Your task to perform on an android device: Open the calendar and show me this week's events? Image 0: 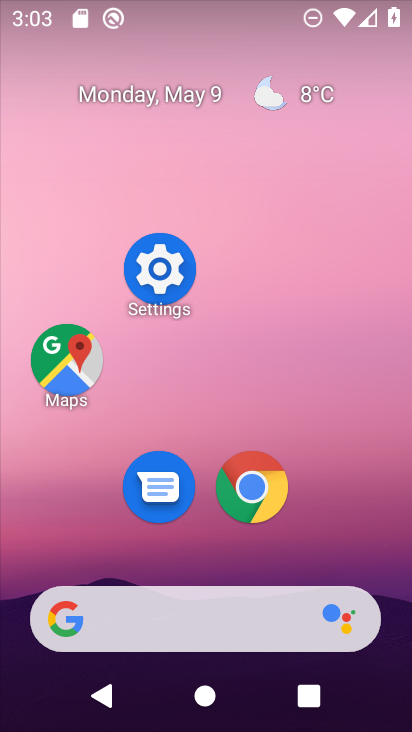
Step 0: drag from (331, 520) to (263, 0)
Your task to perform on an android device: Open the calendar and show me this week's events? Image 1: 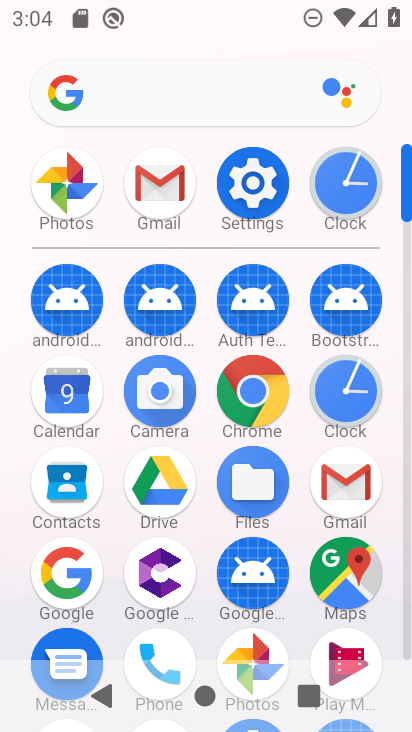
Step 1: click (52, 391)
Your task to perform on an android device: Open the calendar and show me this week's events? Image 2: 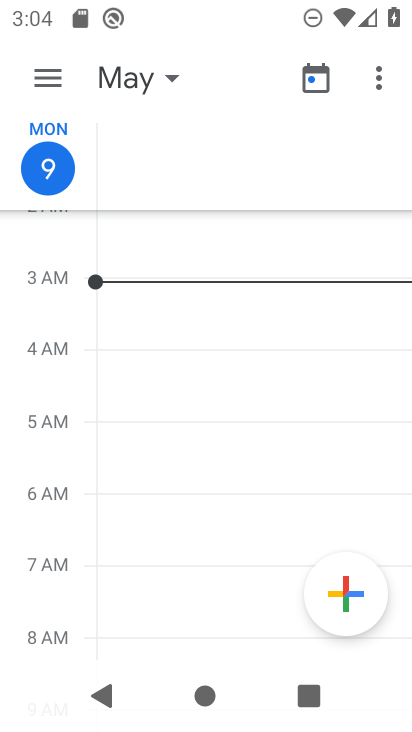
Step 2: click (42, 66)
Your task to perform on an android device: Open the calendar and show me this week's events? Image 3: 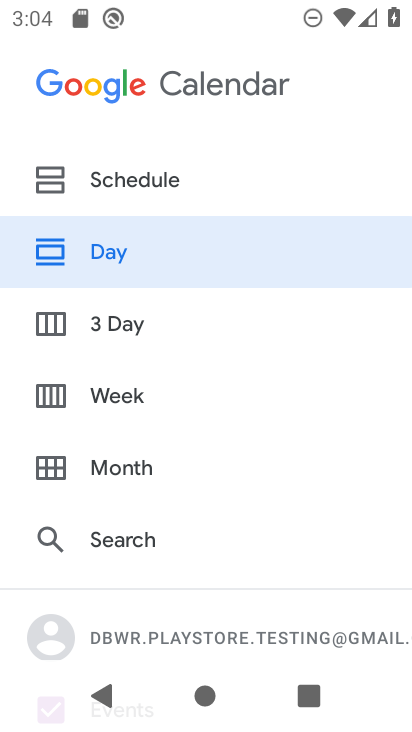
Step 3: click (117, 395)
Your task to perform on an android device: Open the calendar and show me this week's events? Image 4: 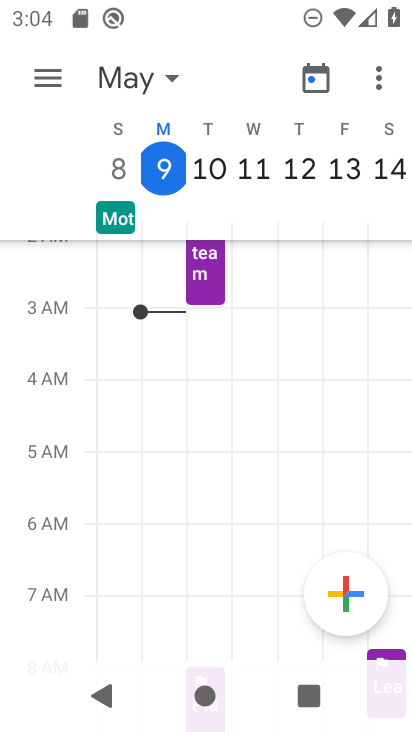
Step 4: task complete